Your task to perform on an android device: install app "Airtel Thanks" Image 0: 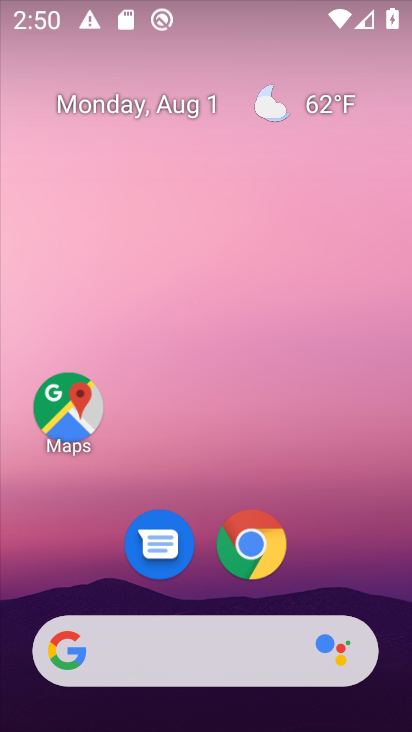
Step 0: drag from (397, 587) to (240, 115)
Your task to perform on an android device: install app "Airtel Thanks" Image 1: 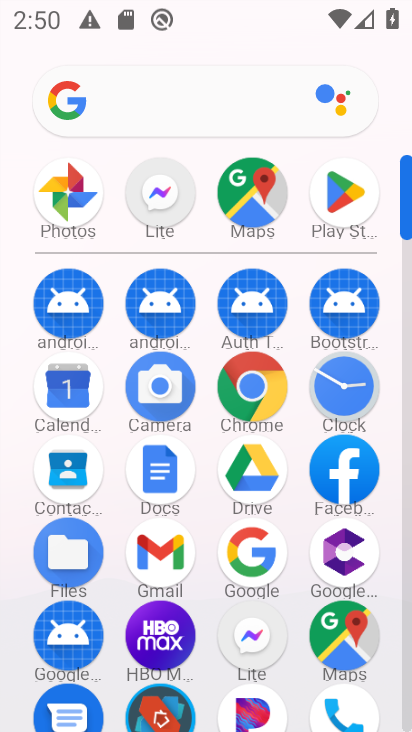
Step 1: click (353, 190)
Your task to perform on an android device: install app "Airtel Thanks" Image 2: 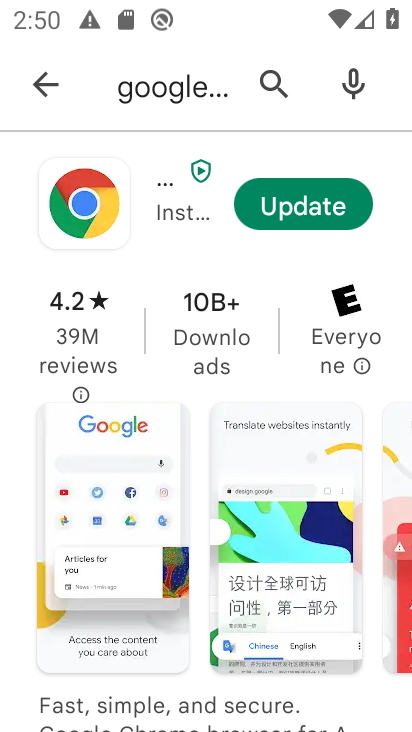
Step 2: press back button
Your task to perform on an android device: install app "Airtel Thanks" Image 3: 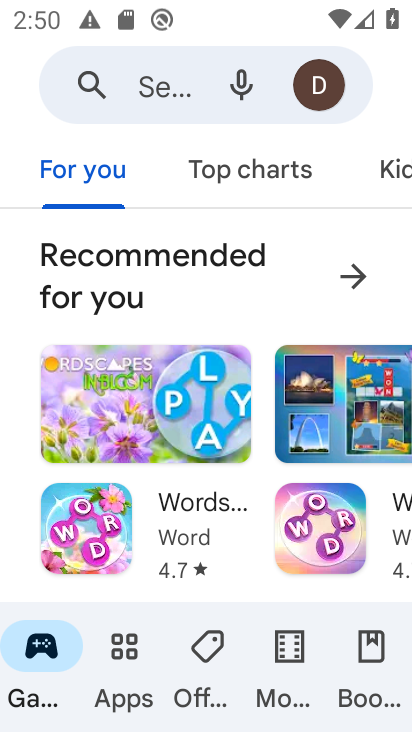
Step 3: click (144, 92)
Your task to perform on an android device: install app "Airtel Thanks" Image 4: 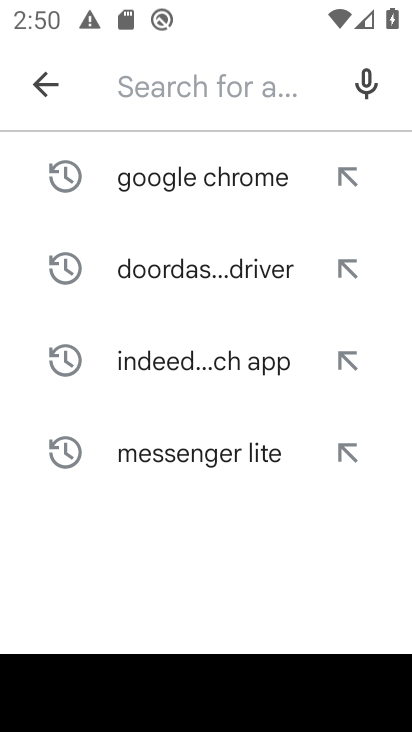
Step 4: type "Airtel Thanks"
Your task to perform on an android device: install app "Airtel Thanks" Image 5: 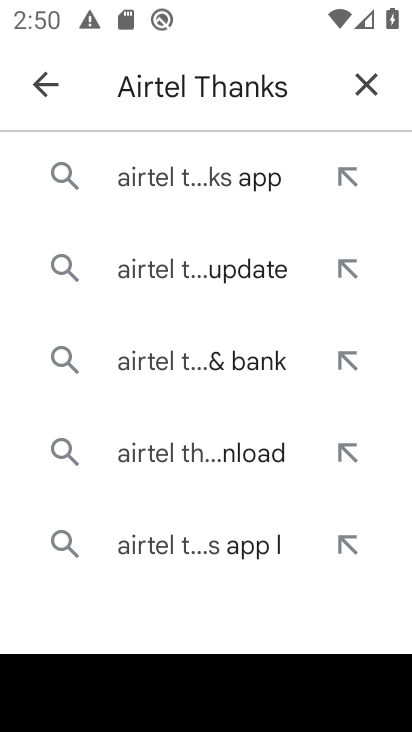
Step 5: click (177, 191)
Your task to perform on an android device: install app "Airtel Thanks" Image 6: 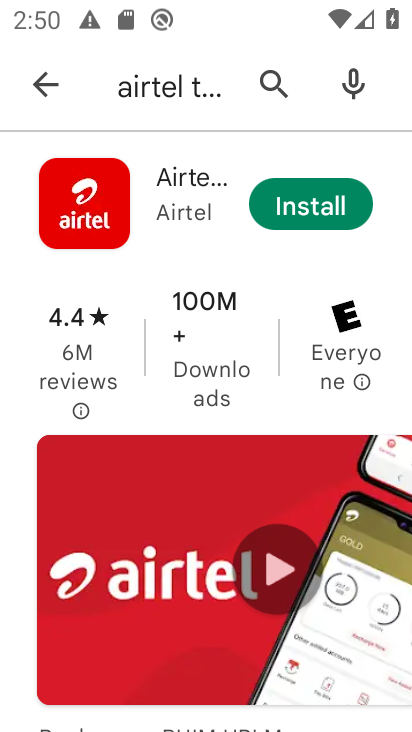
Step 6: click (290, 201)
Your task to perform on an android device: install app "Airtel Thanks" Image 7: 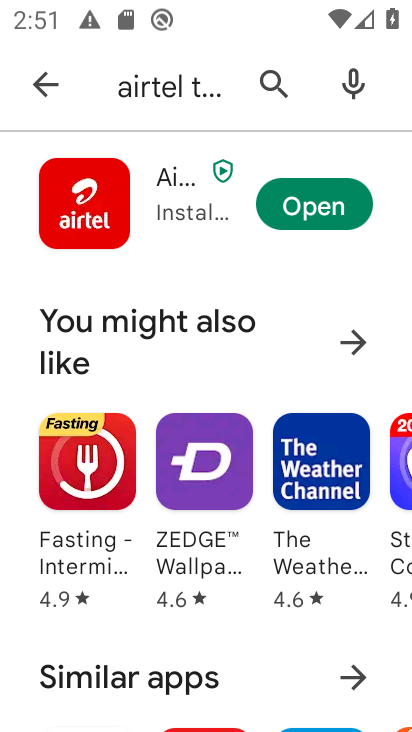
Step 7: task complete